Your task to perform on an android device: Open Google Chrome and click the shortcut for Amazon.com Image 0: 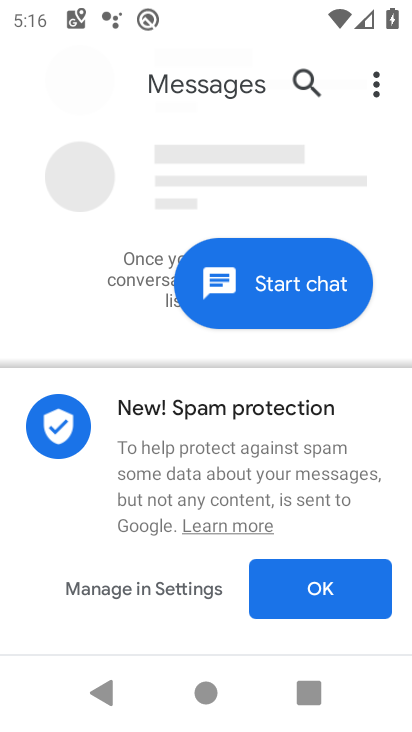
Step 0: press back button
Your task to perform on an android device: Open Google Chrome and click the shortcut for Amazon.com Image 1: 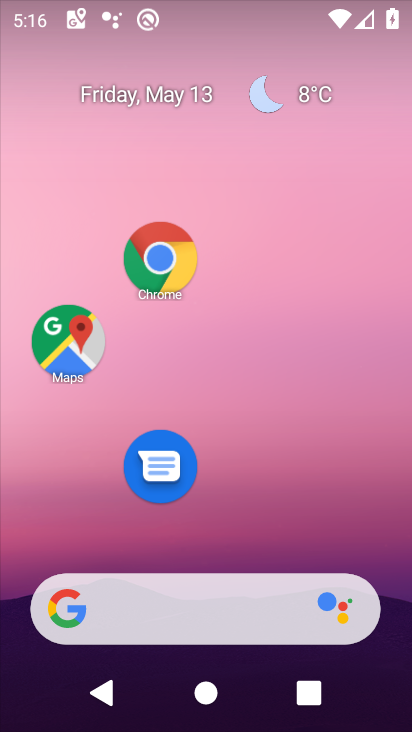
Step 1: drag from (316, 575) to (151, 115)
Your task to perform on an android device: Open Google Chrome and click the shortcut for Amazon.com Image 2: 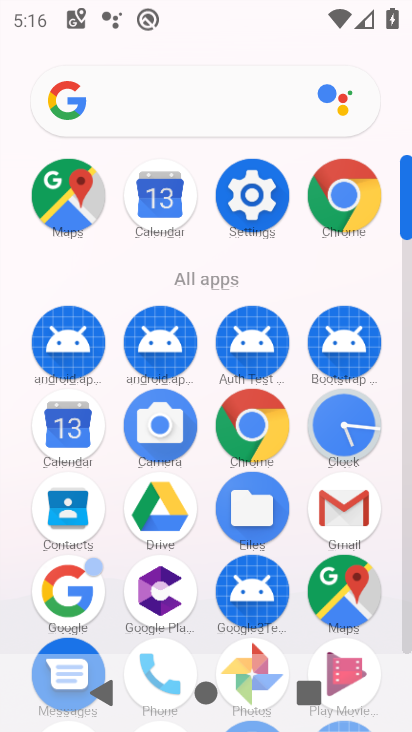
Step 2: click (356, 188)
Your task to perform on an android device: Open Google Chrome and click the shortcut for Amazon.com Image 3: 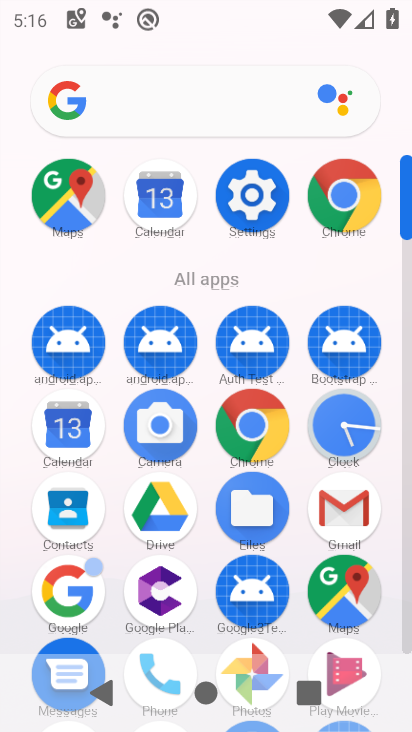
Step 3: click (349, 187)
Your task to perform on an android device: Open Google Chrome and click the shortcut for Amazon.com Image 4: 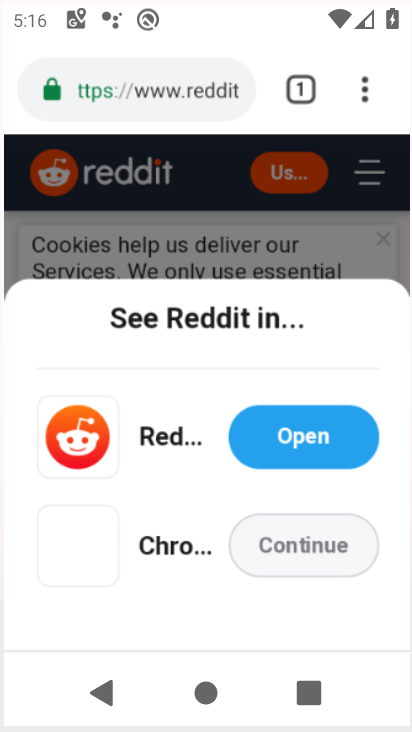
Step 4: click (347, 189)
Your task to perform on an android device: Open Google Chrome and click the shortcut for Amazon.com Image 5: 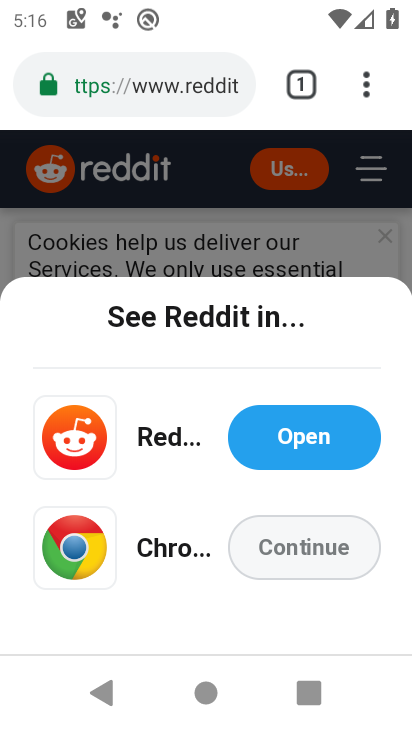
Step 5: drag from (370, 84) to (72, 182)
Your task to perform on an android device: Open Google Chrome and click the shortcut for Amazon.com Image 6: 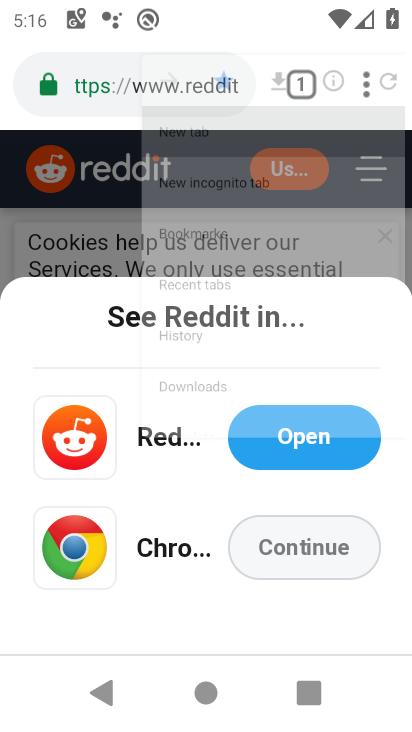
Step 6: click (72, 182)
Your task to perform on an android device: Open Google Chrome and click the shortcut for Amazon.com Image 7: 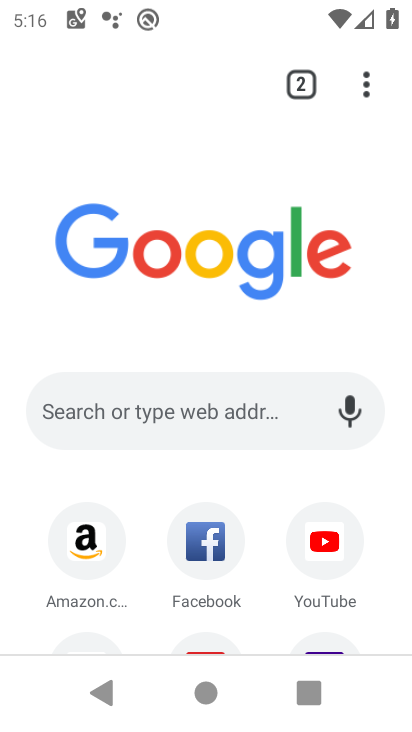
Step 7: click (76, 588)
Your task to perform on an android device: Open Google Chrome and click the shortcut for Amazon.com Image 8: 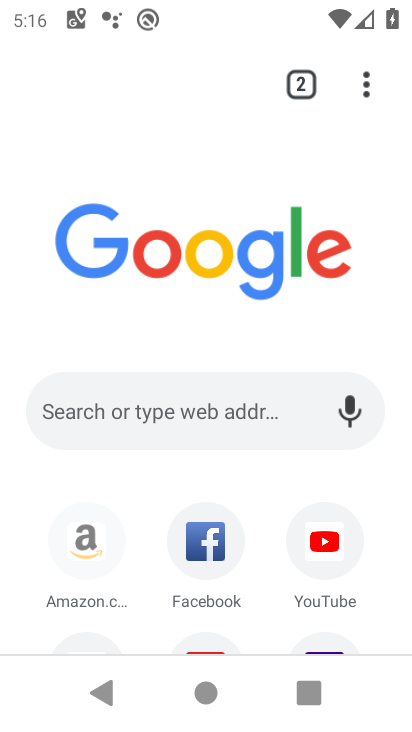
Step 8: click (76, 567)
Your task to perform on an android device: Open Google Chrome and click the shortcut for Amazon.com Image 9: 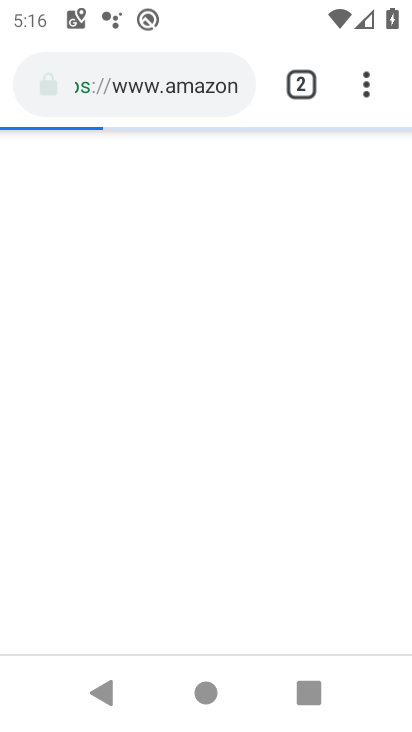
Step 9: click (79, 542)
Your task to perform on an android device: Open Google Chrome and click the shortcut for Amazon.com Image 10: 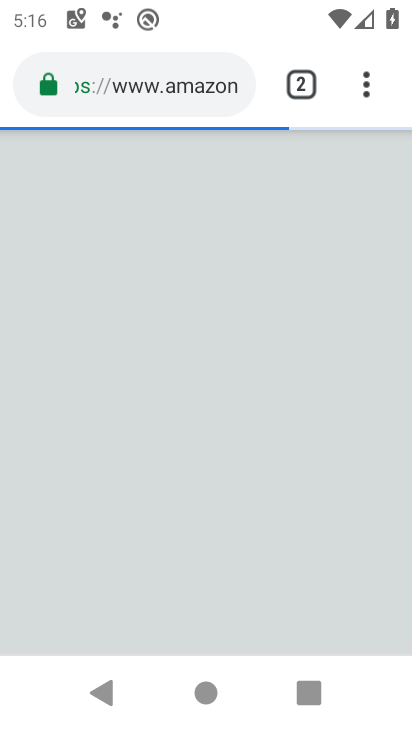
Step 10: click (78, 526)
Your task to perform on an android device: Open Google Chrome and click the shortcut for Amazon.com Image 11: 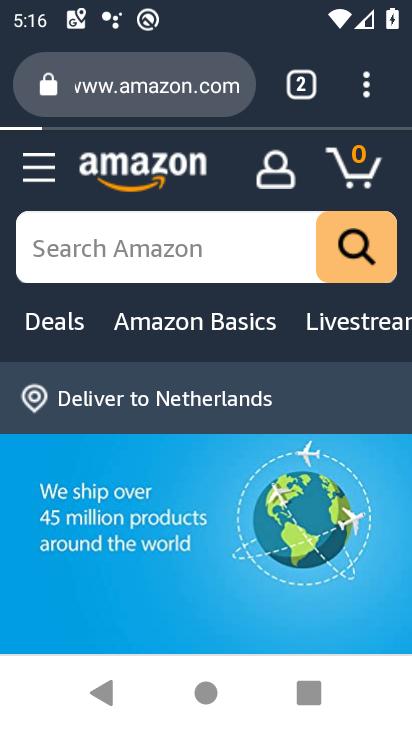
Step 11: task complete